Your task to perform on an android device: Open settings on Google Maps Image 0: 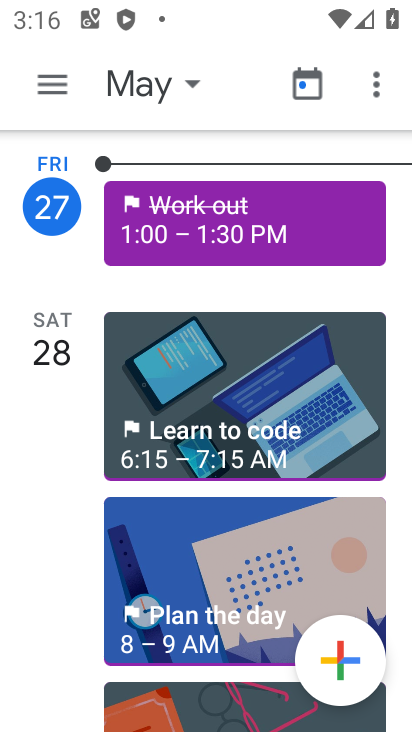
Step 0: press home button
Your task to perform on an android device: Open settings on Google Maps Image 1: 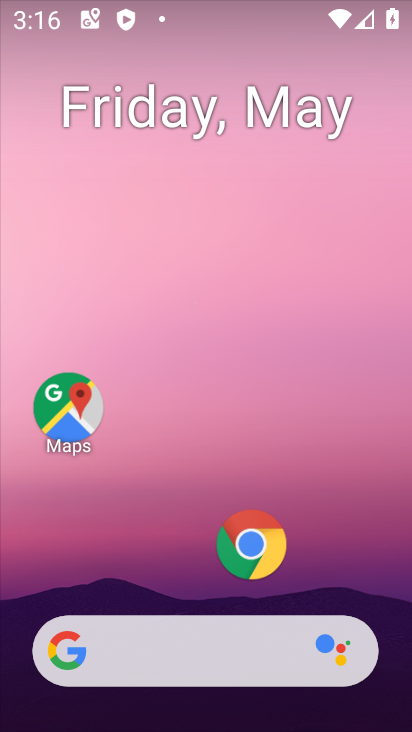
Step 1: click (62, 426)
Your task to perform on an android device: Open settings on Google Maps Image 2: 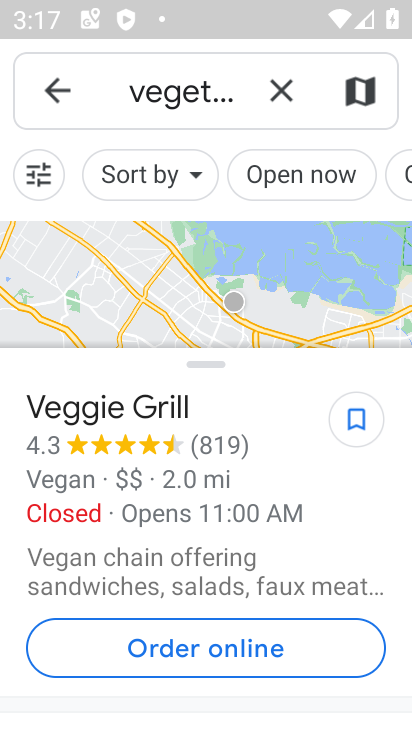
Step 2: click (49, 88)
Your task to perform on an android device: Open settings on Google Maps Image 3: 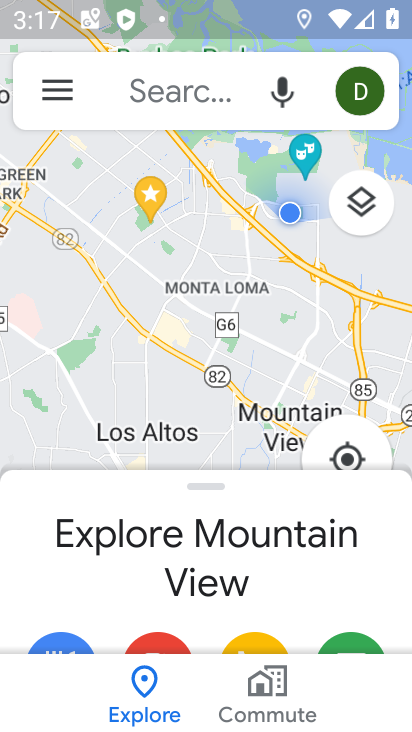
Step 3: click (49, 88)
Your task to perform on an android device: Open settings on Google Maps Image 4: 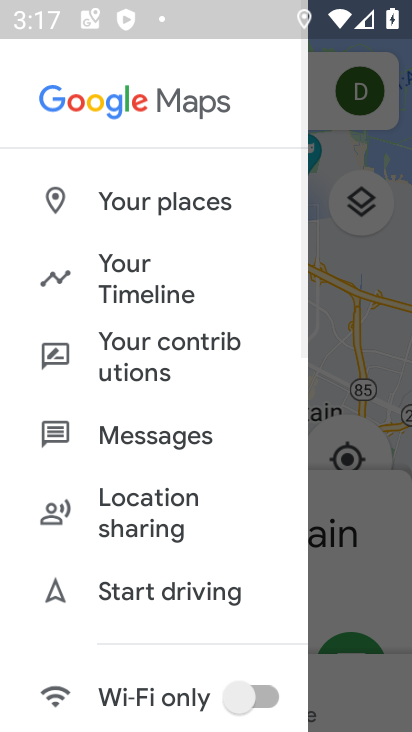
Step 4: drag from (137, 592) to (153, 250)
Your task to perform on an android device: Open settings on Google Maps Image 5: 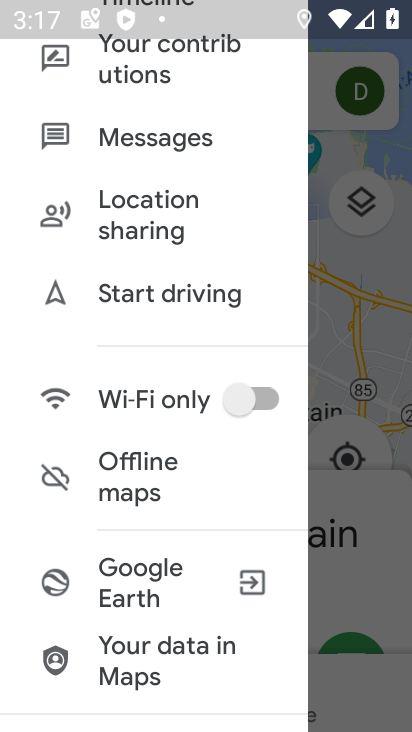
Step 5: drag from (158, 575) to (160, 232)
Your task to perform on an android device: Open settings on Google Maps Image 6: 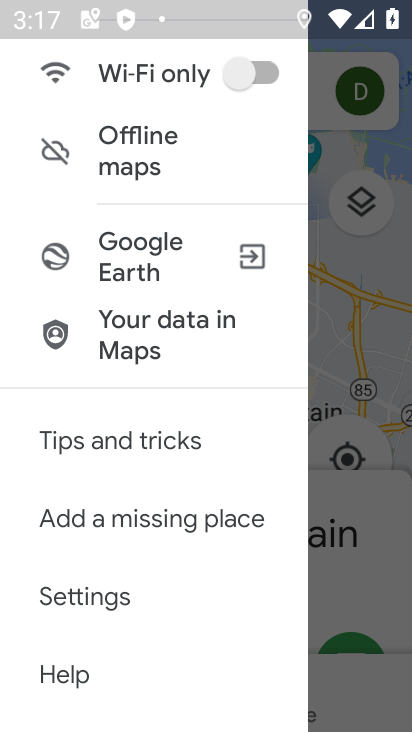
Step 6: drag from (161, 509) to (168, 221)
Your task to perform on an android device: Open settings on Google Maps Image 7: 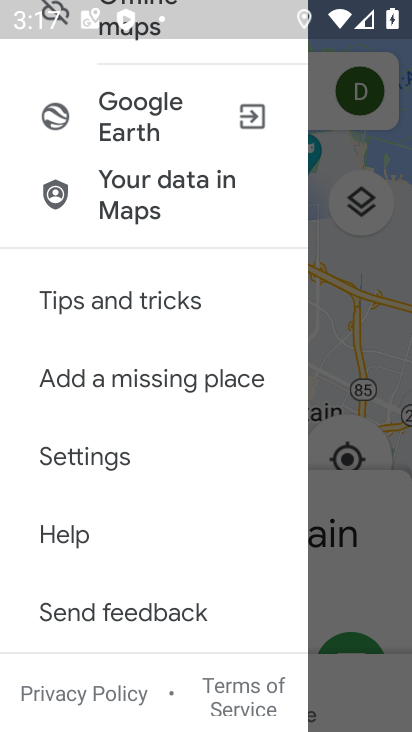
Step 7: click (105, 456)
Your task to perform on an android device: Open settings on Google Maps Image 8: 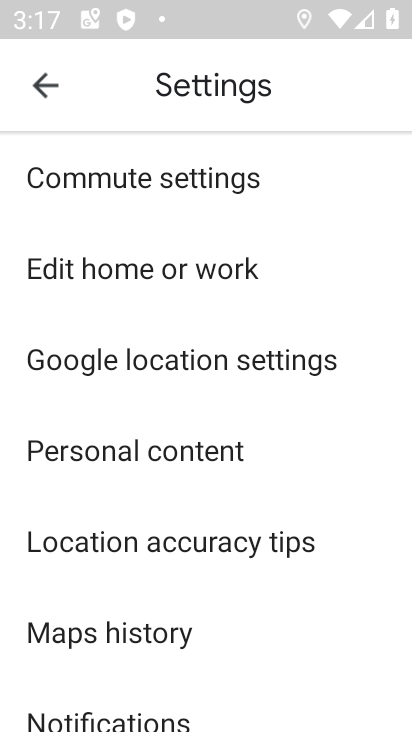
Step 8: task complete